Your task to perform on an android device: Go to Reddit.com Image 0: 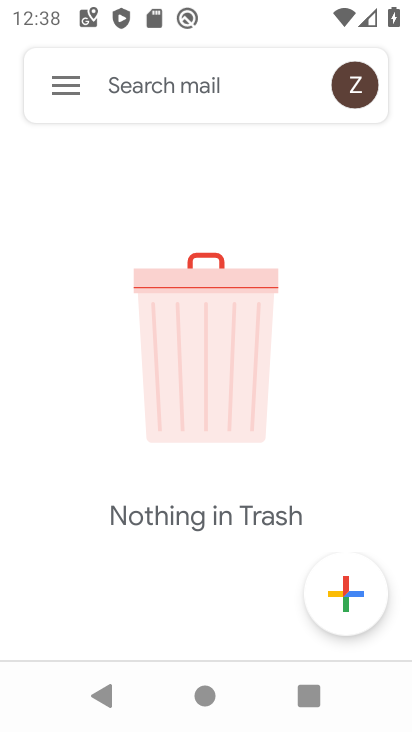
Step 0: press home button
Your task to perform on an android device: Go to Reddit.com Image 1: 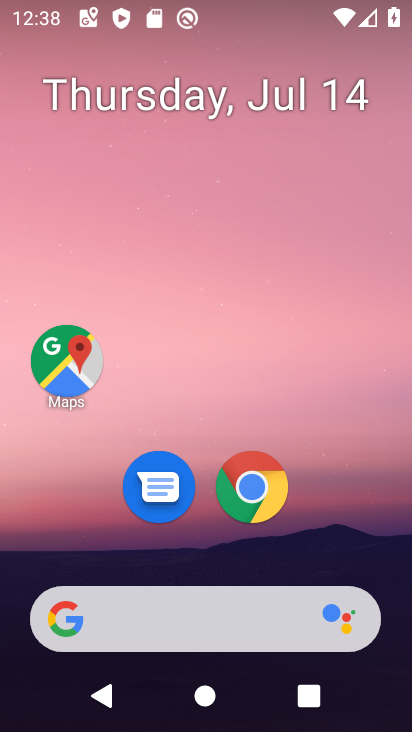
Step 1: drag from (234, 588) to (238, 152)
Your task to perform on an android device: Go to Reddit.com Image 2: 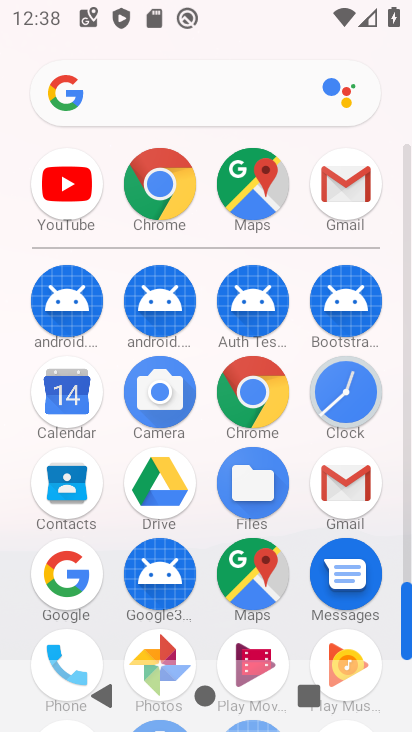
Step 2: click (163, 200)
Your task to perform on an android device: Go to Reddit.com Image 3: 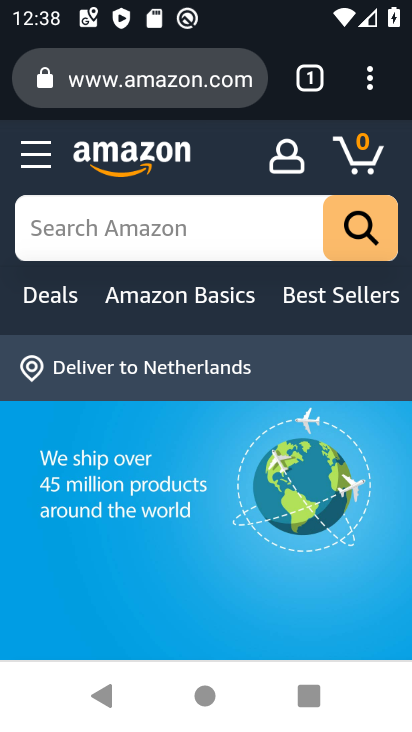
Step 3: click (173, 72)
Your task to perform on an android device: Go to Reddit.com Image 4: 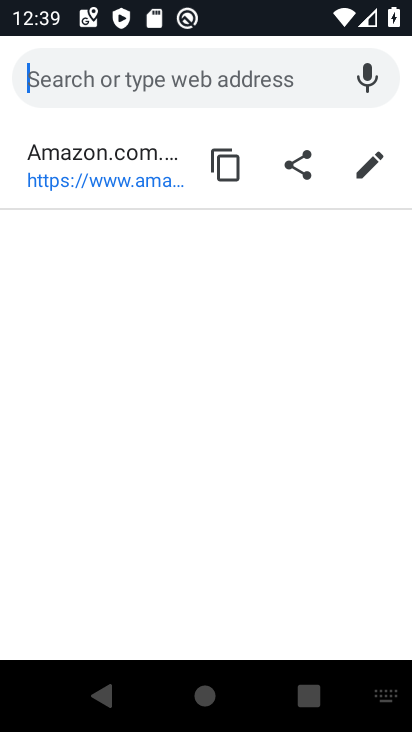
Step 4: type "reddit.com"
Your task to perform on an android device: Go to Reddit.com Image 5: 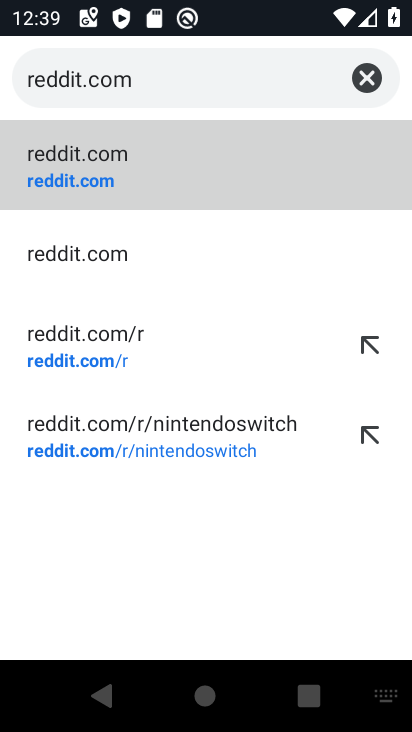
Step 5: click (166, 178)
Your task to perform on an android device: Go to Reddit.com Image 6: 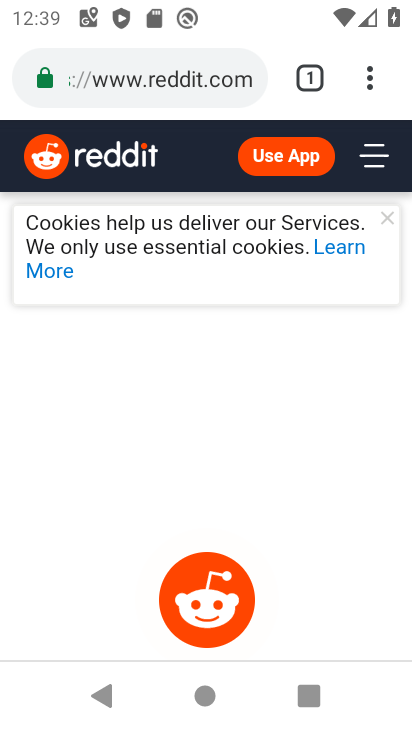
Step 6: task complete